Your task to perform on an android device: delete browsing data in the chrome app Image 0: 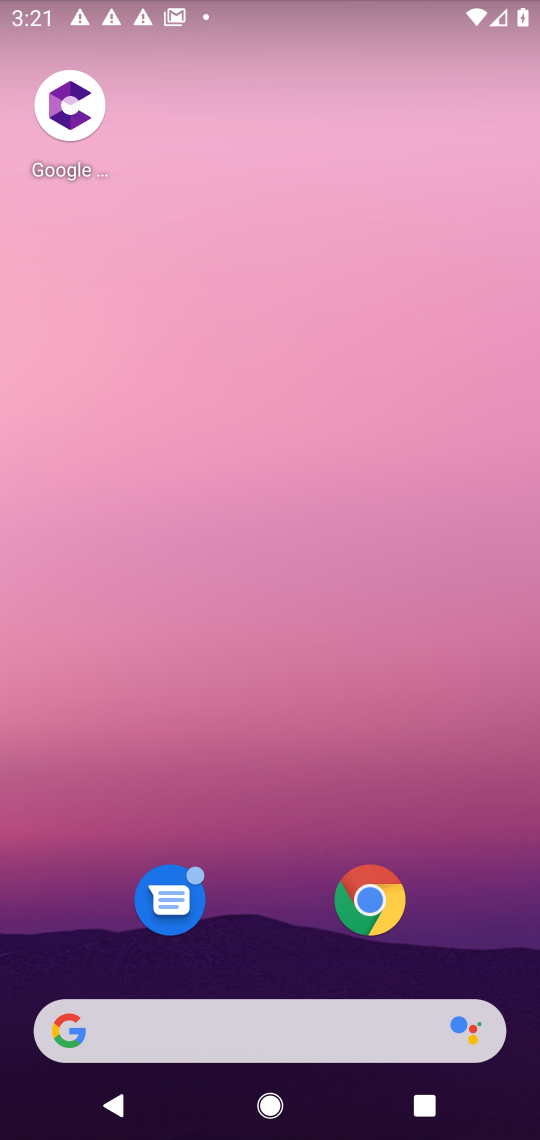
Step 0: click (388, 912)
Your task to perform on an android device: delete browsing data in the chrome app Image 1: 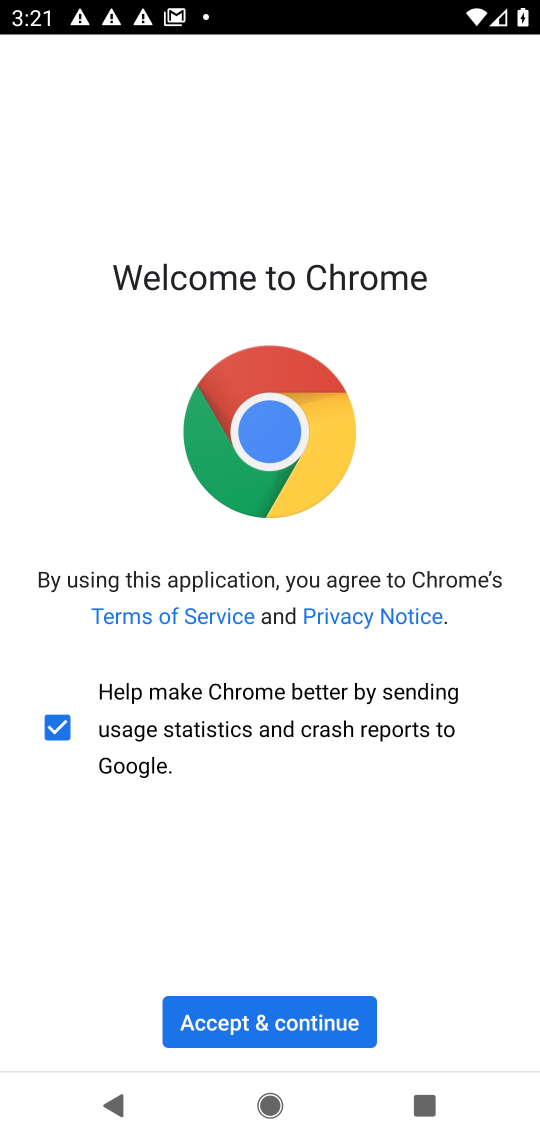
Step 1: click (285, 1016)
Your task to perform on an android device: delete browsing data in the chrome app Image 2: 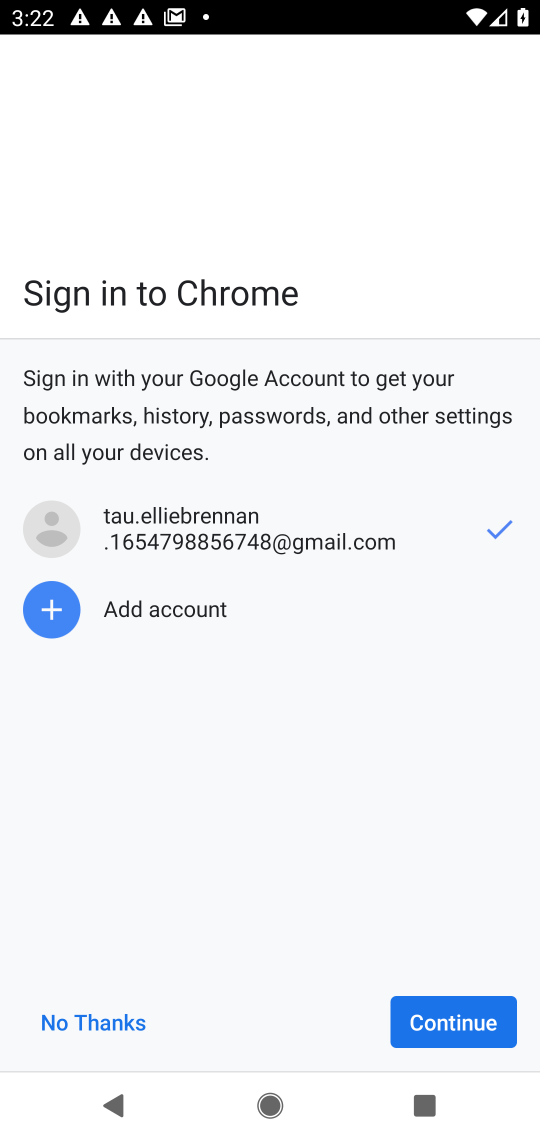
Step 2: click (462, 1014)
Your task to perform on an android device: delete browsing data in the chrome app Image 3: 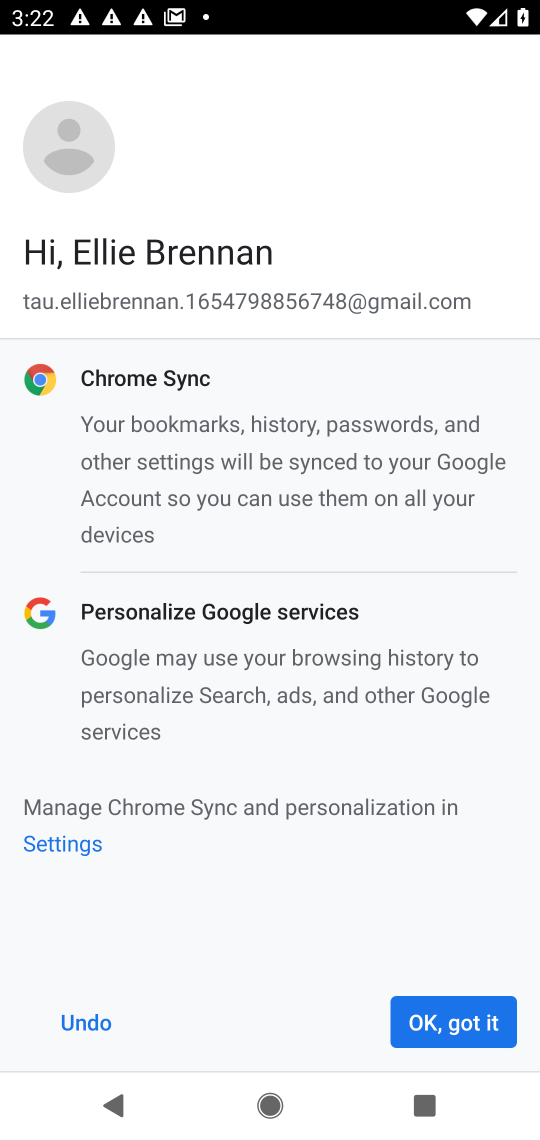
Step 3: click (434, 1021)
Your task to perform on an android device: delete browsing data in the chrome app Image 4: 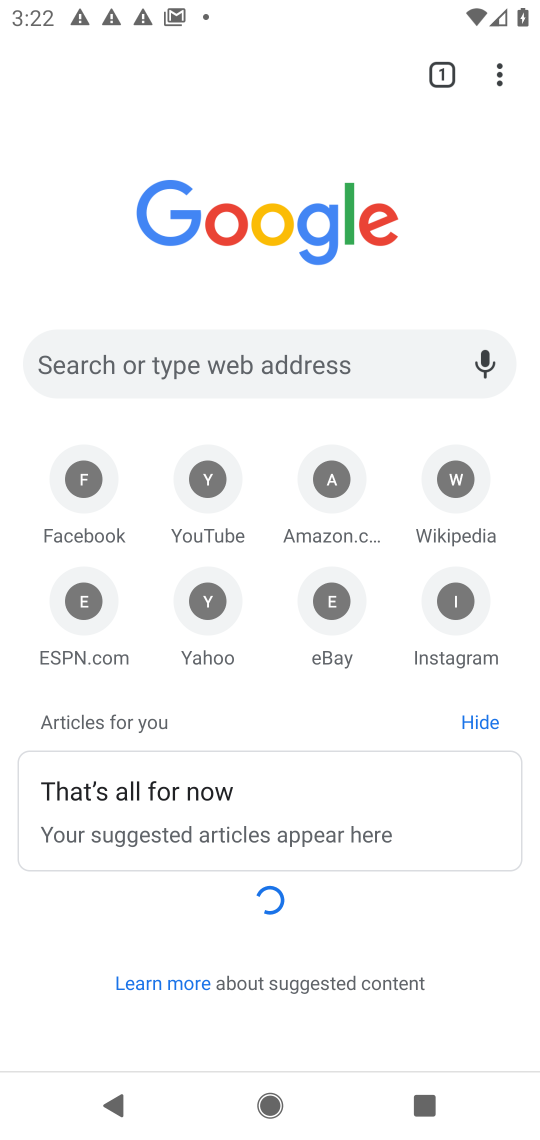
Step 4: click (498, 71)
Your task to perform on an android device: delete browsing data in the chrome app Image 5: 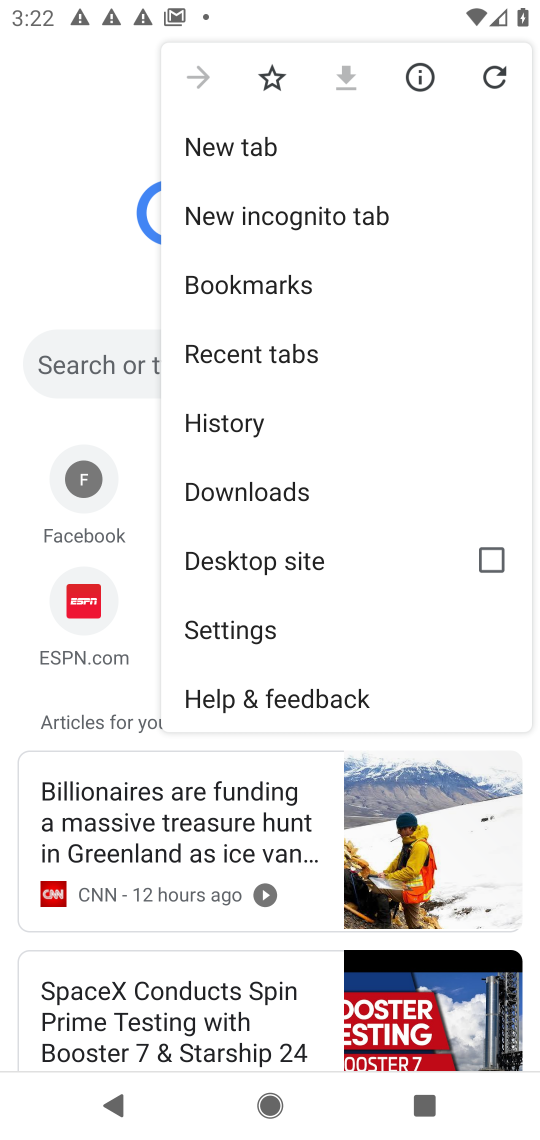
Step 5: click (248, 417)
Your task to perform on an android device: delete browsing data in the chrome app Image 6: 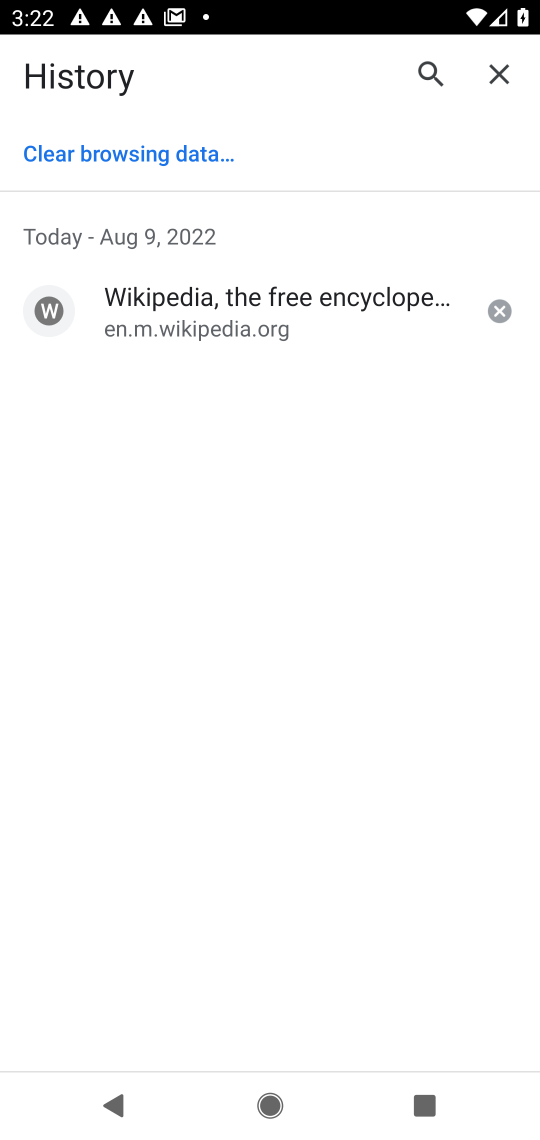
Step 6: click (185, 151)
Your task to perform on an android device: delete browsing data in the chrome app Image 7: 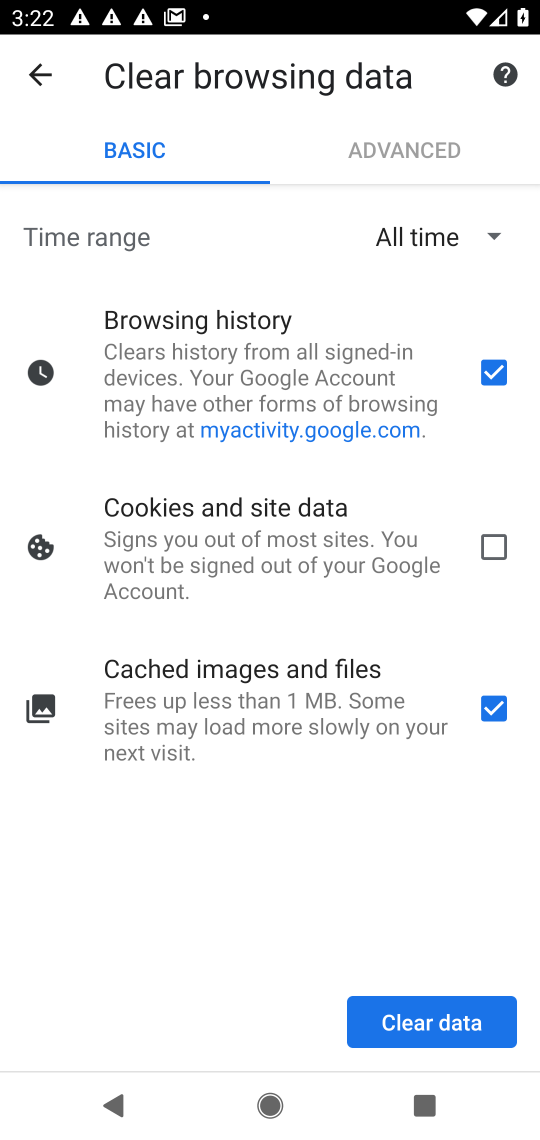
Step 7: click (452, 1003)
Your task to perform on an android device: delete browsing data in the chrome app Image 8: 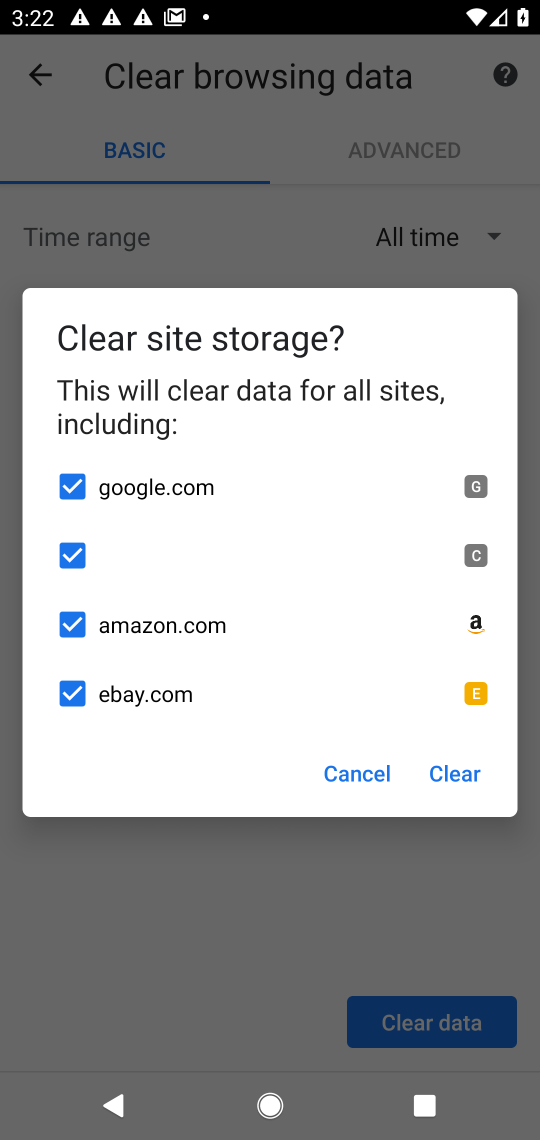
Step 8: click (458, 775)
Your task to perform on an android device: delete browsing data in the chrome app Image 9: 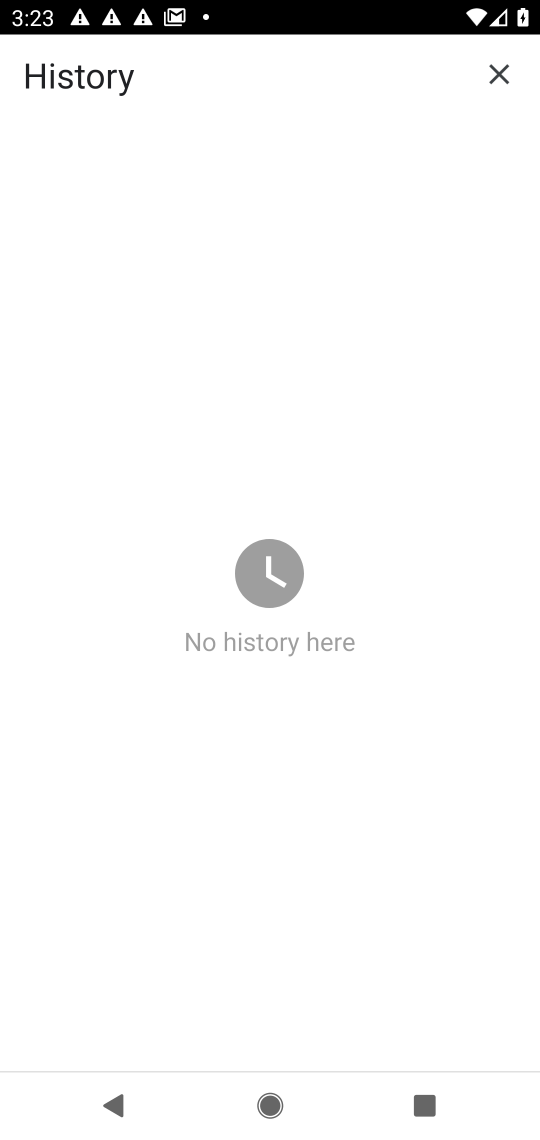
Step 9: task complete